Your task to perform on an android device: Open Google Maps Image 0: 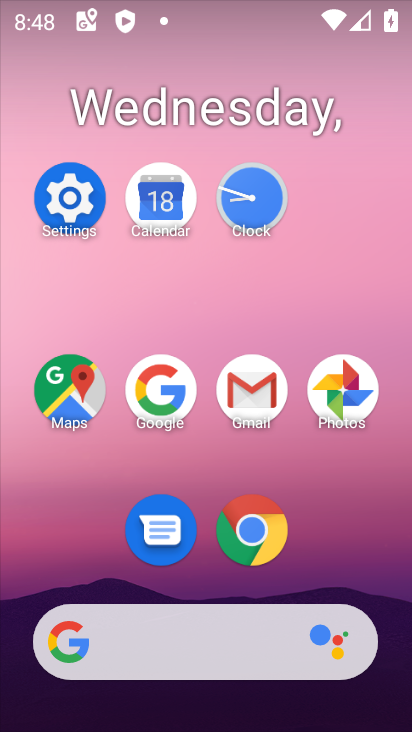
Step 0: click (80, 369)
Your task to perform on an android device: Open Google Maps Image 1: 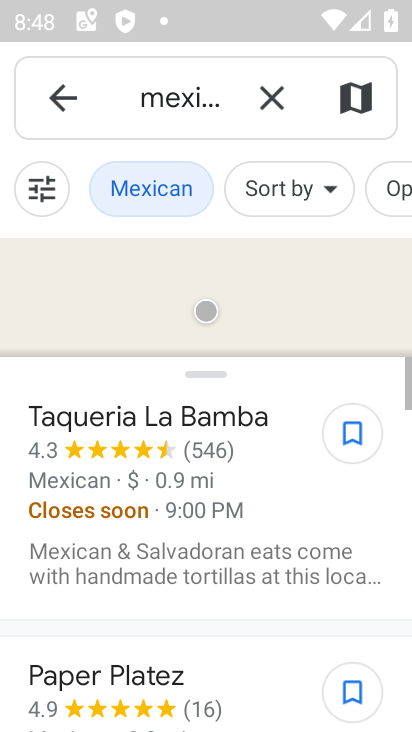
Step 1: task complete